Your task to perform on an android device: Go to privacy settings Image 0: 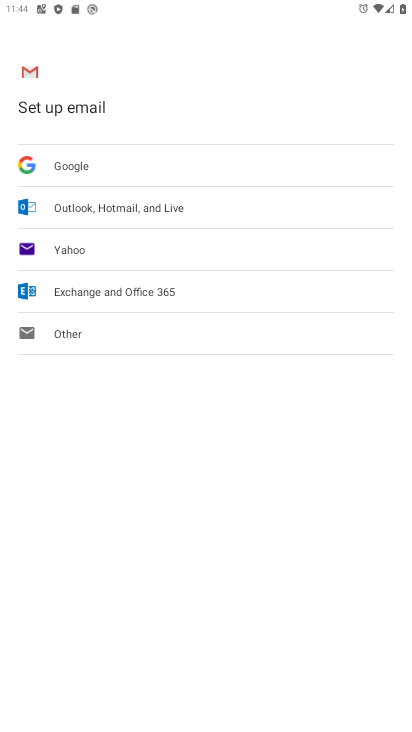
Step 0: press home button
Your task to perform on an android device: Go to privacy settings Image 1: 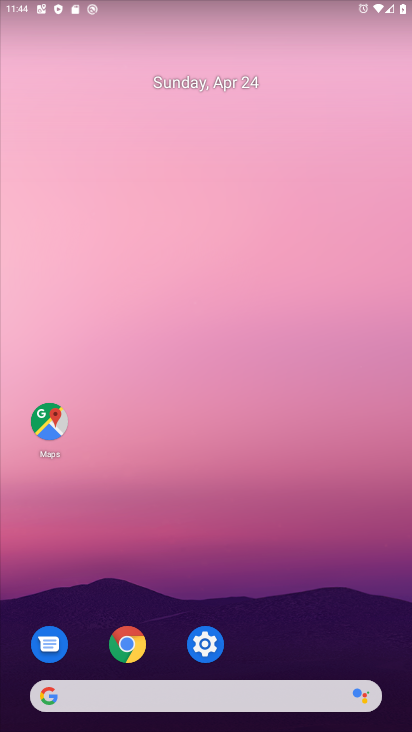
Step 1: drag from (273, 660) to (76, 70)
Your task to perform on an android device: Go to privacy settings Image 2: 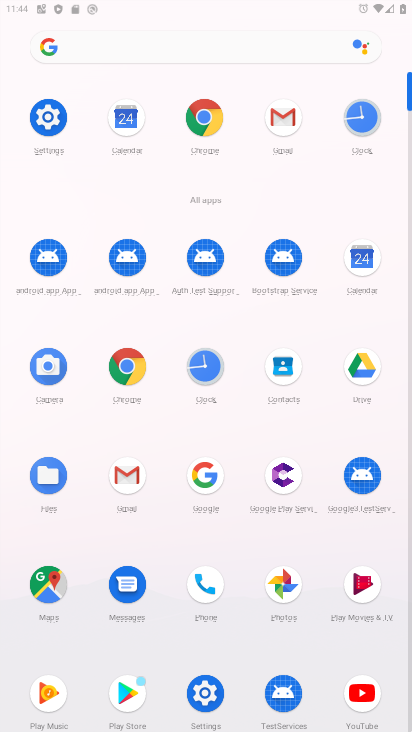
Step 2: drag from (262, 591) to (70, 65)
Your task to perform on an android device: Go to privacy settings Image 3: 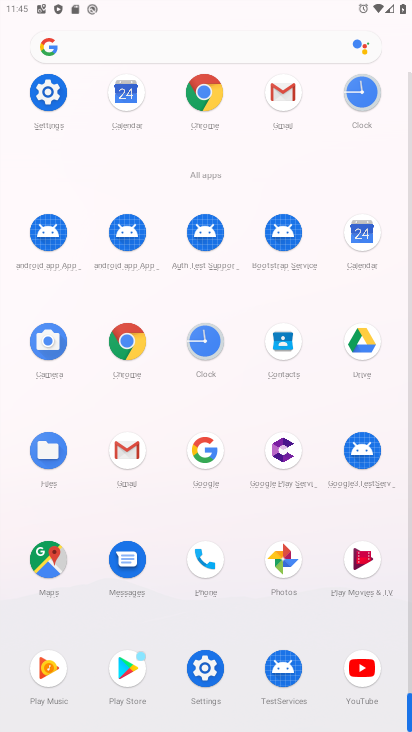
Step 3: click (40, 90)
Your task to perform on an android device: Go to privacy settings Image 4: 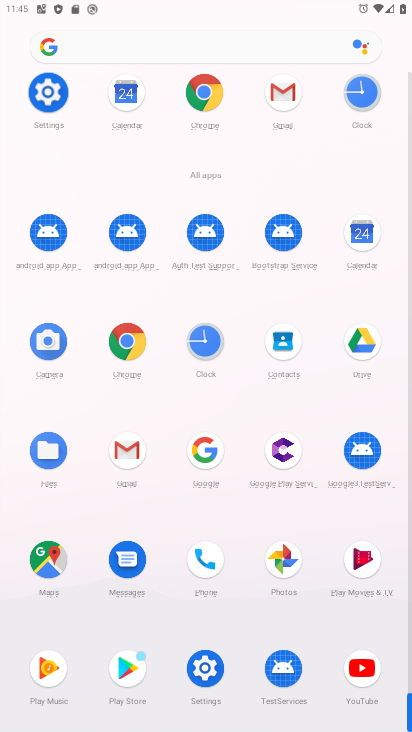
Step 4: click (46, 103)
Your task to perform on an android device: Go to privacy settings Image 5: 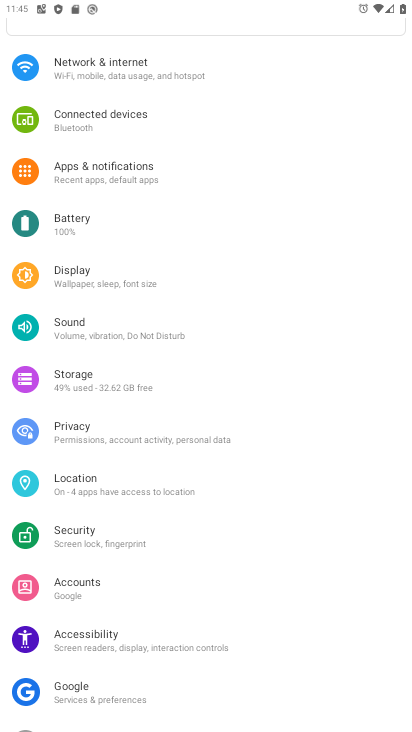
Step 5: click (64, 428)
Your task to perform on an android device: Go to privacy settings Image 6: 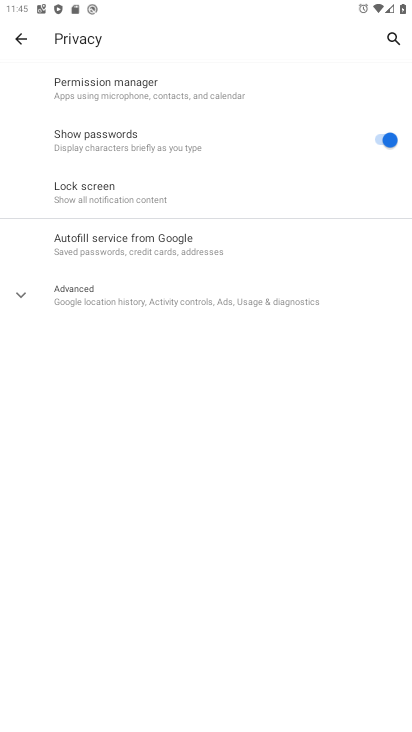
Step 6: task complete